Your task to perform on an android device: turn off location history Image 0: 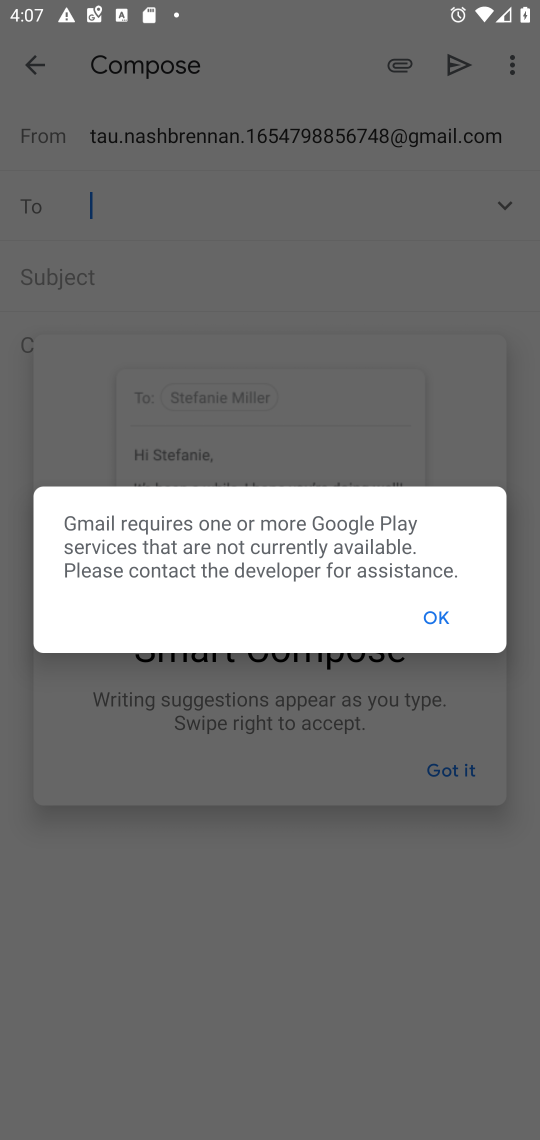
Step 0: press home button
Your task to perform on an android device: turn off location history Image 1: 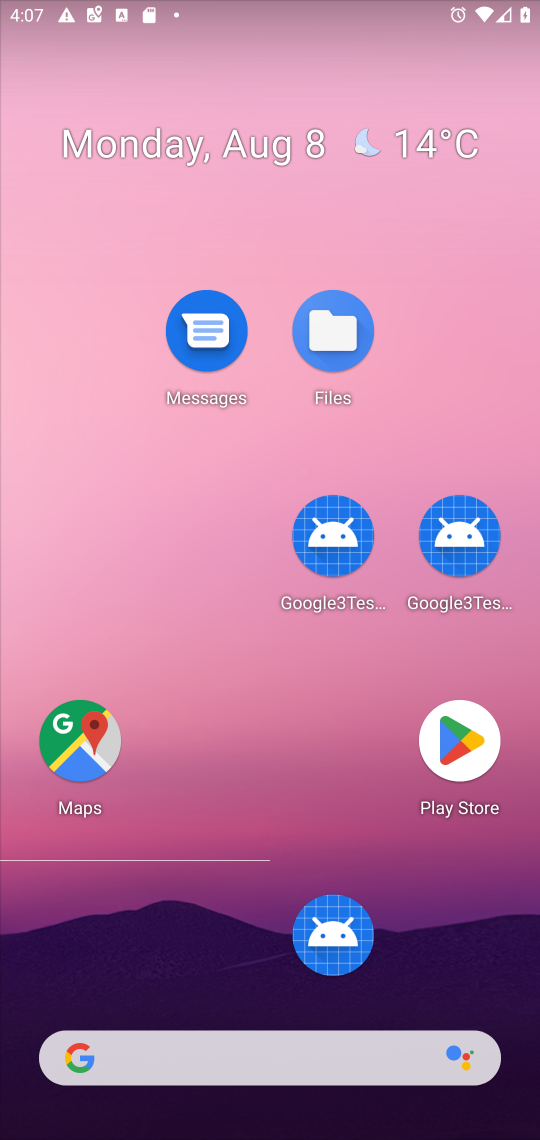
Step 1: drag from (230, 1037) to (218, 30)
Your task to perform on an android device: turn off location history Image 2: 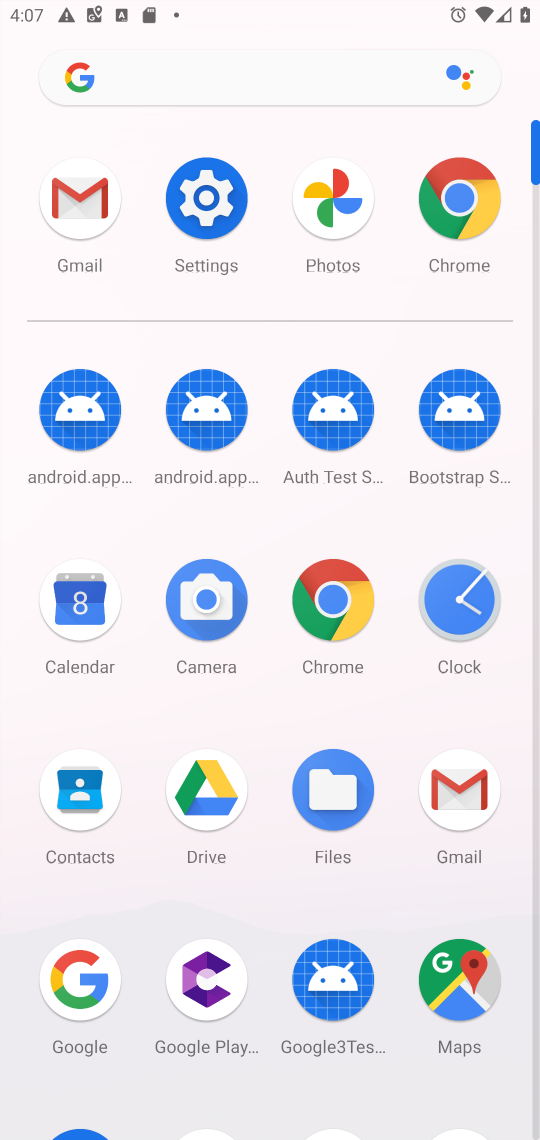
Step 2: click (203, 177)
Your task to perform on an android device: turn off location history Image 3: 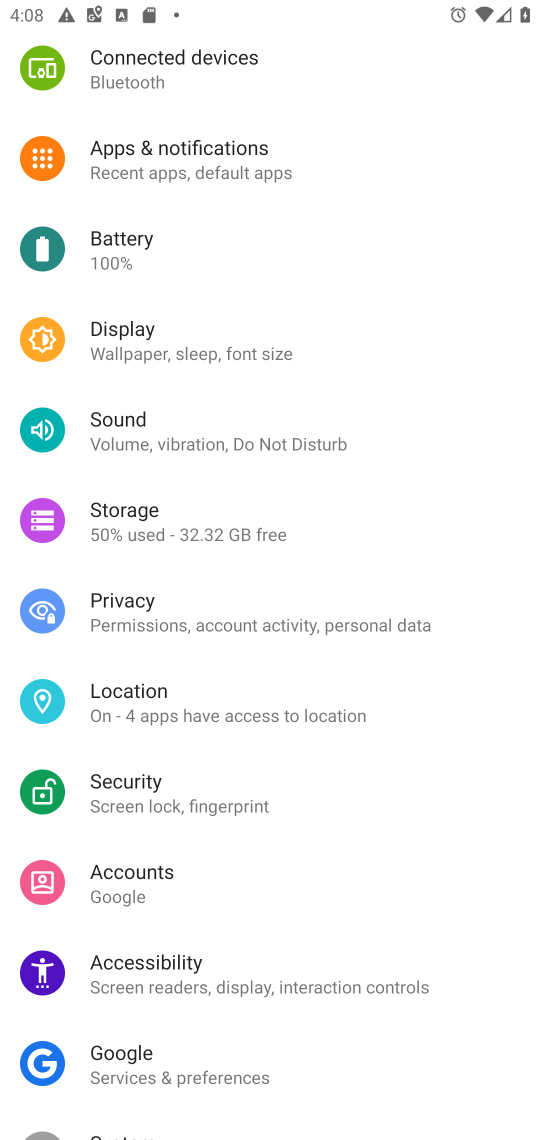
Step 3: click (159, 721)
Your task to perform on an android device: turn off location history Image 4: 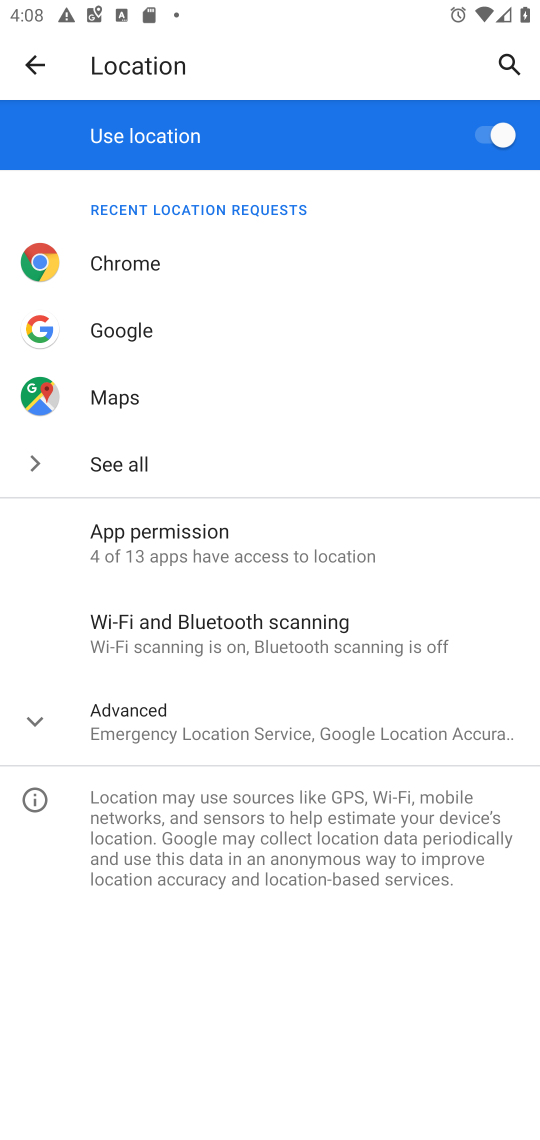
Step 4: click (241, 735)
Your task to perform on an android device: turn off location history Image 5: 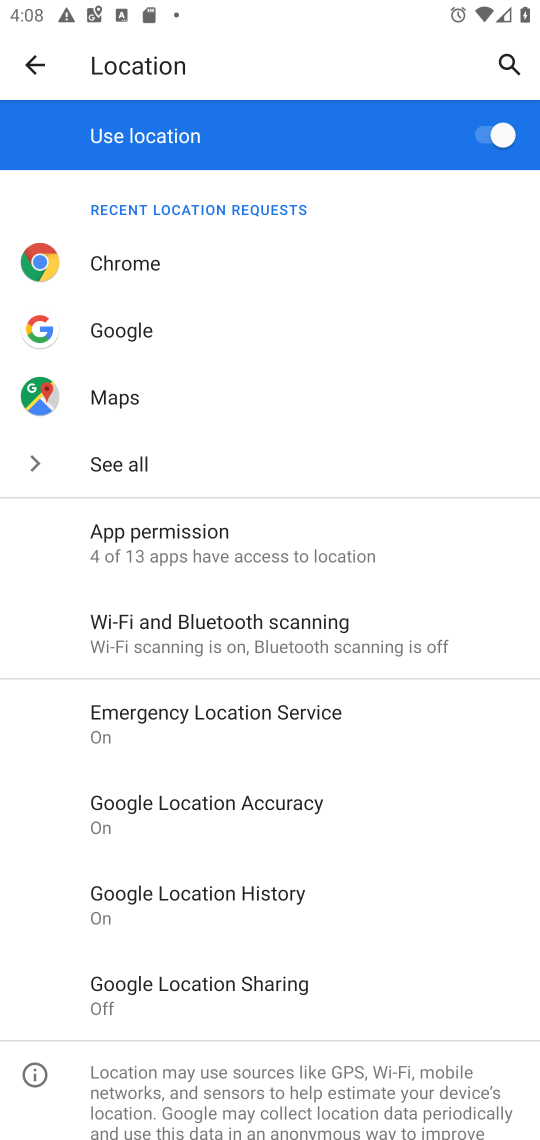
Step 5: click (244, 892)
Your task to perform on an android device: turn off location history Image 6: 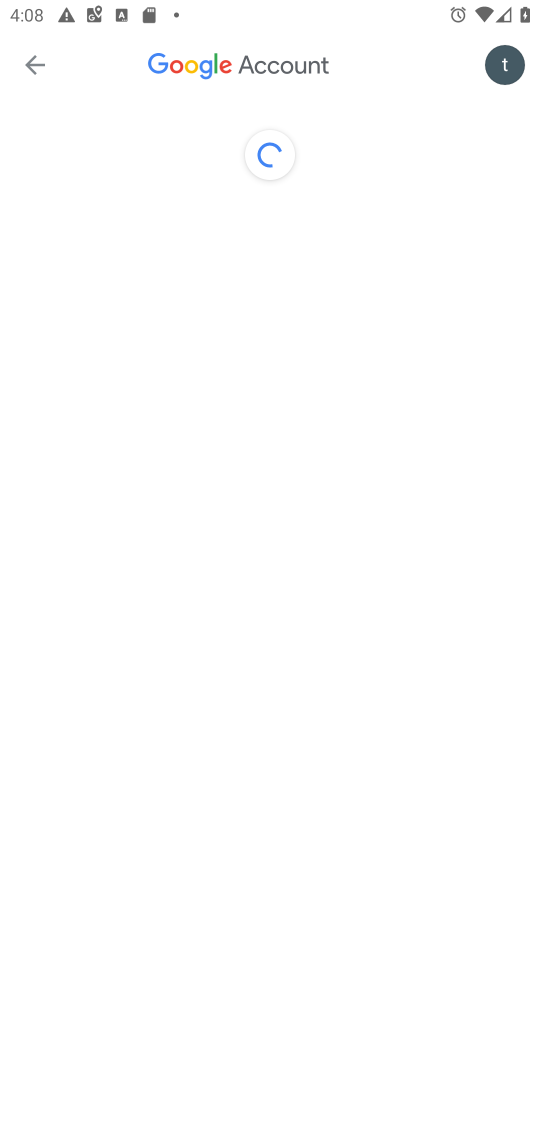
Step 6: click (419, 842)
Your task to perform on an android device: turn off location history Image 7: 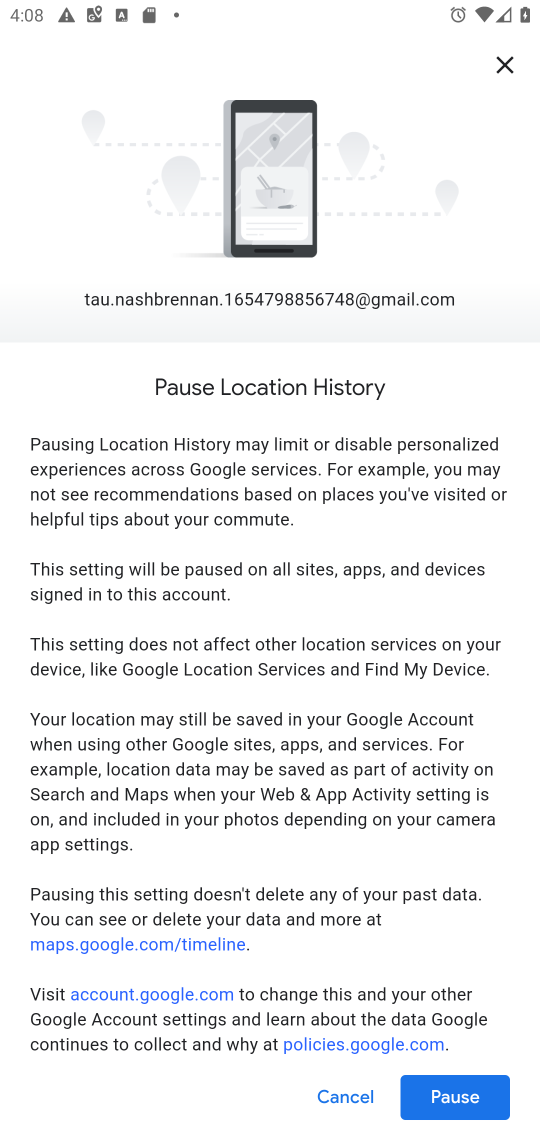
Step 7: click (441, 1082)
Your task to perform on an android device: turn off location history Image 8: 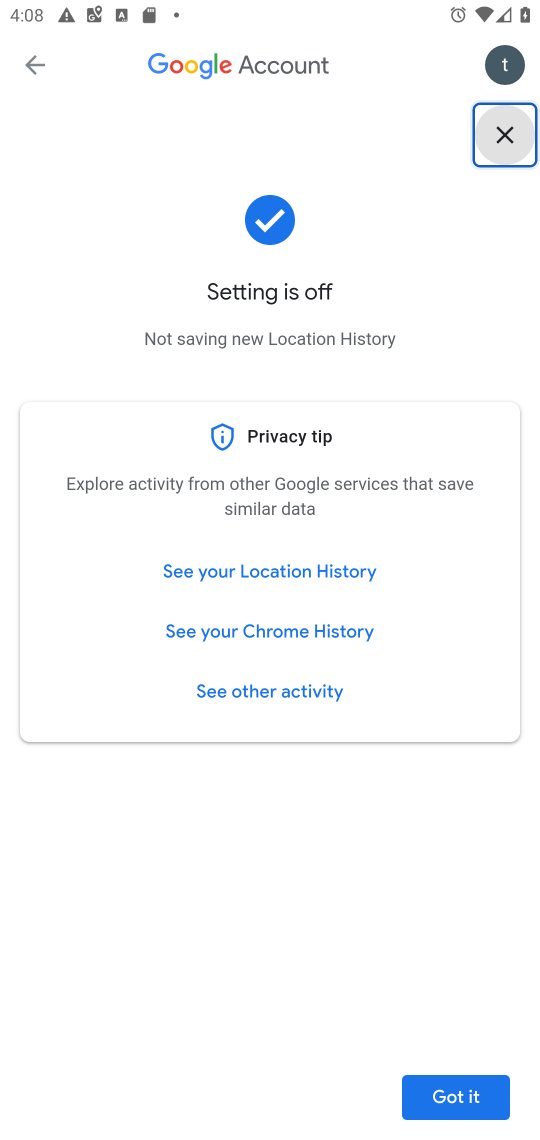
Step 8: task complete